Your task to perform on an android device: empty trash in google photos Image 0: 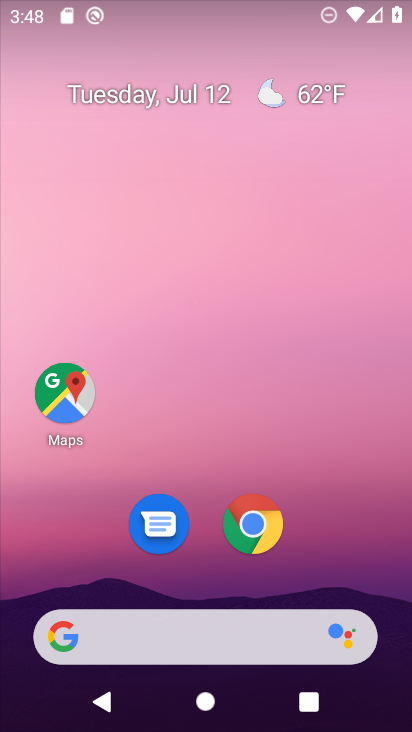
Step 0: drag from (319, 532) to (316, 10)
Your task to perform on an android device: empty trash in google photos Image 1: 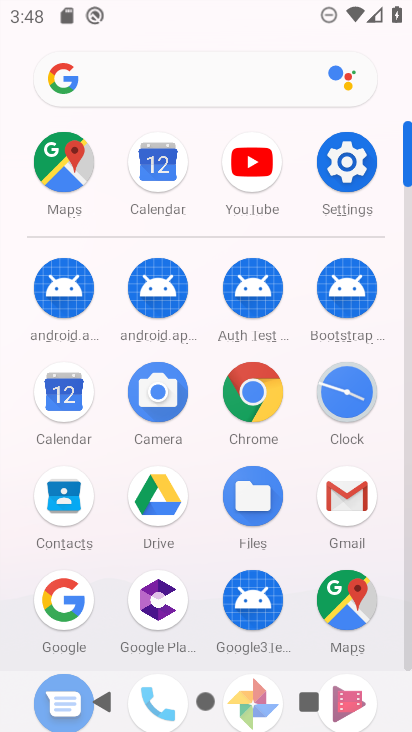
Step 1: drag from (296, 617) to (303, 289)
Your task to perform on an android device: empty trash in google photos Image 2: 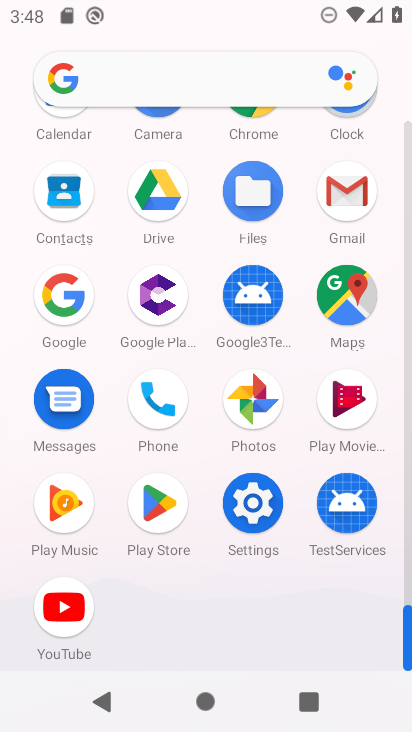
Step 2: click (261, 411)
Your task to perform on an android device: empty trash in google photos Image 3: 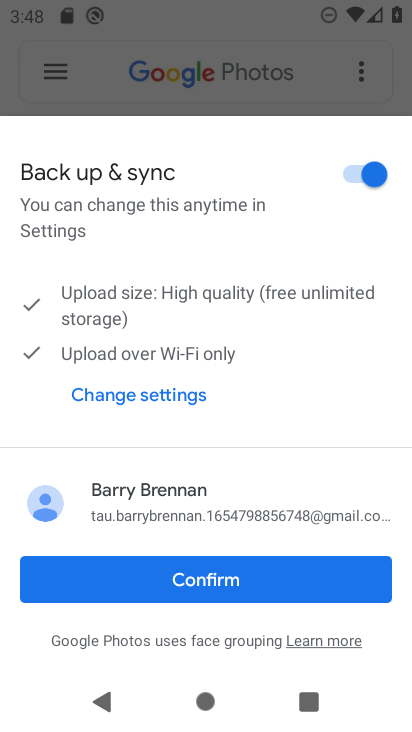
Step 3: click (273, 584)
Your task to perform on an android device: empty trash in google photos Image 4: 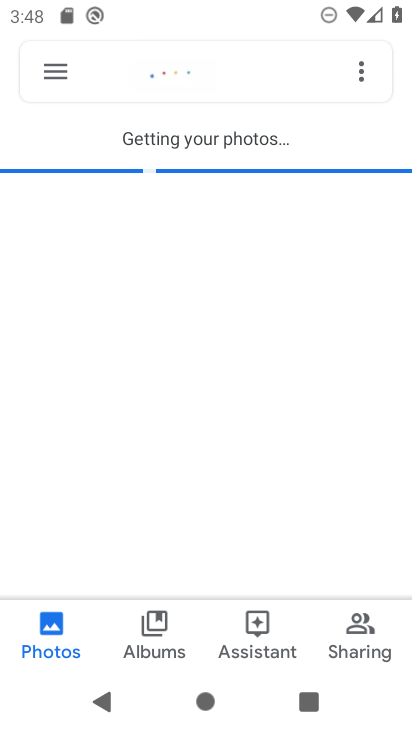
Step 4: click (49, 71)
Your task to perform on an android device: empty trash in google photos Image 5: 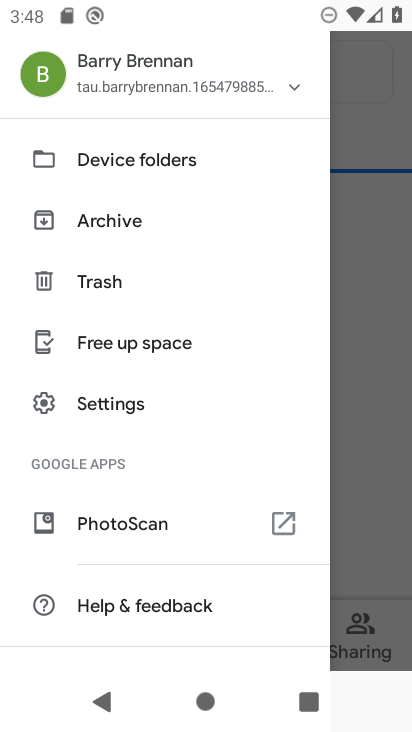
Step 5: click (101, 287)
Your task to perform on an android device: empty trash in google photos Image 6: 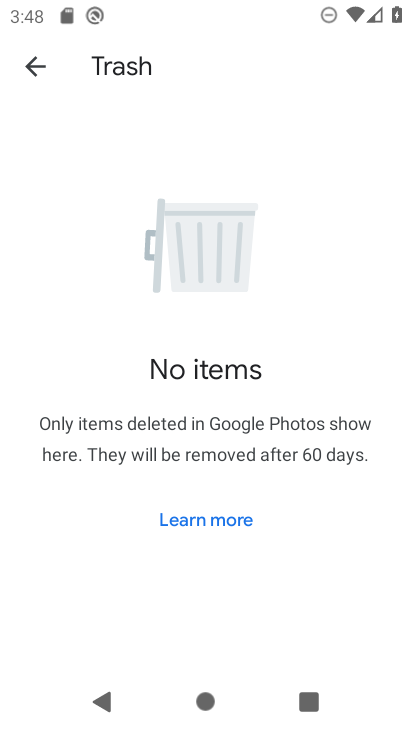
Step 6: task complete